Your task to perform on an android device: Is it going to rain today? Image 0: 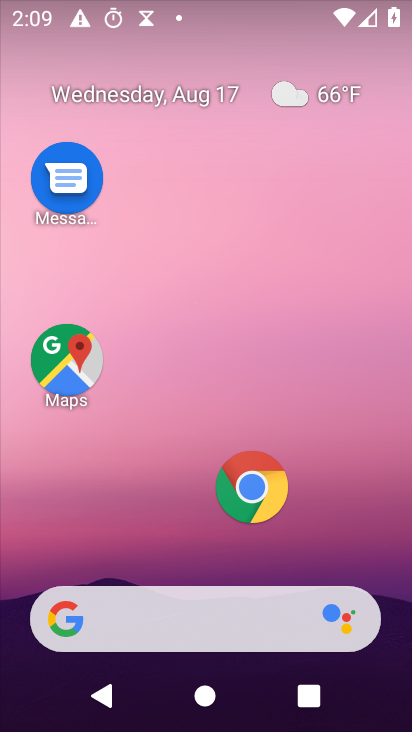
Step 0: click (74, 621)
Your task to perform on an android device: Is it going to rain today? Image 1: 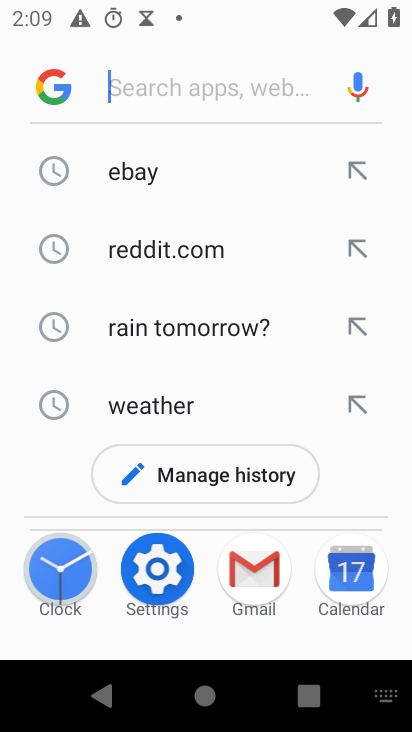
Step 1: type "rain today?"
Your task to perform on an android device: Is it going to rain today? Image 2: 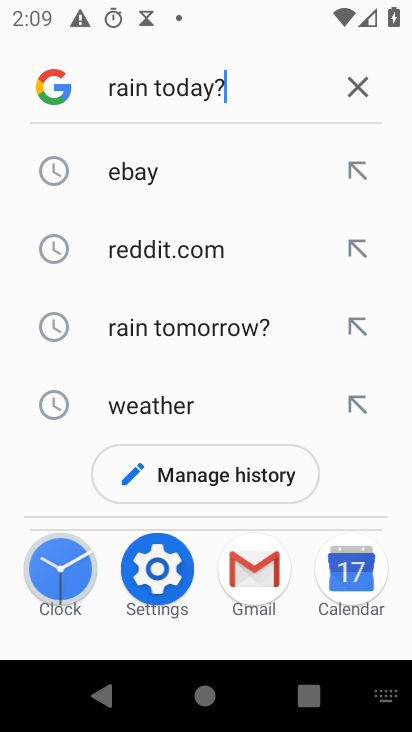
Step 2: press enter
Your task to perform on an android device: Is it going to rain today? Image 3: 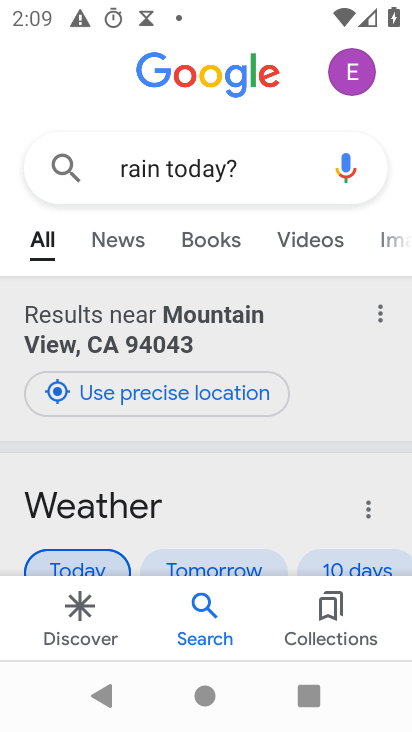
Step 3: task complete